Your task to perform on an android device: open app "Google Chrome" Image 0: 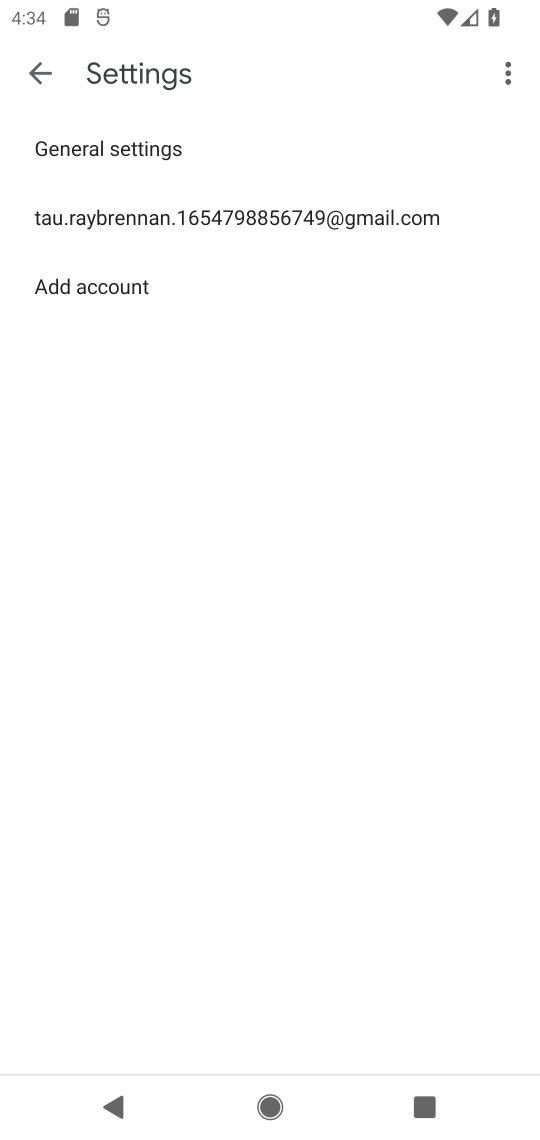
Step 0: press home button
Your task to perform on an android device: open app "Google Chrome" Image 1: 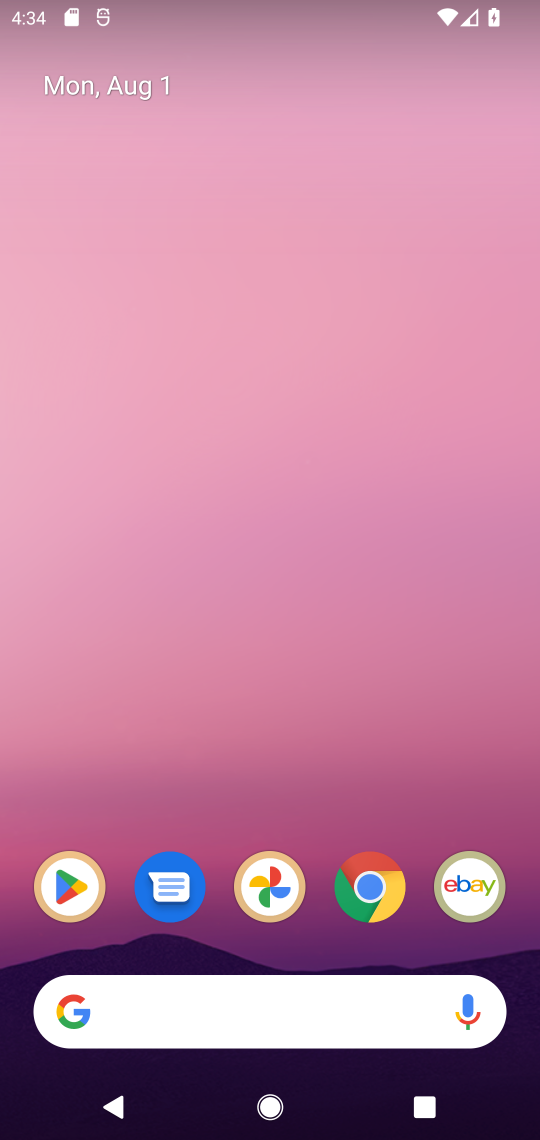
Step 1: click (356, 866)
Your task to perform on an android device: open app "Google Chrome" Image 2: 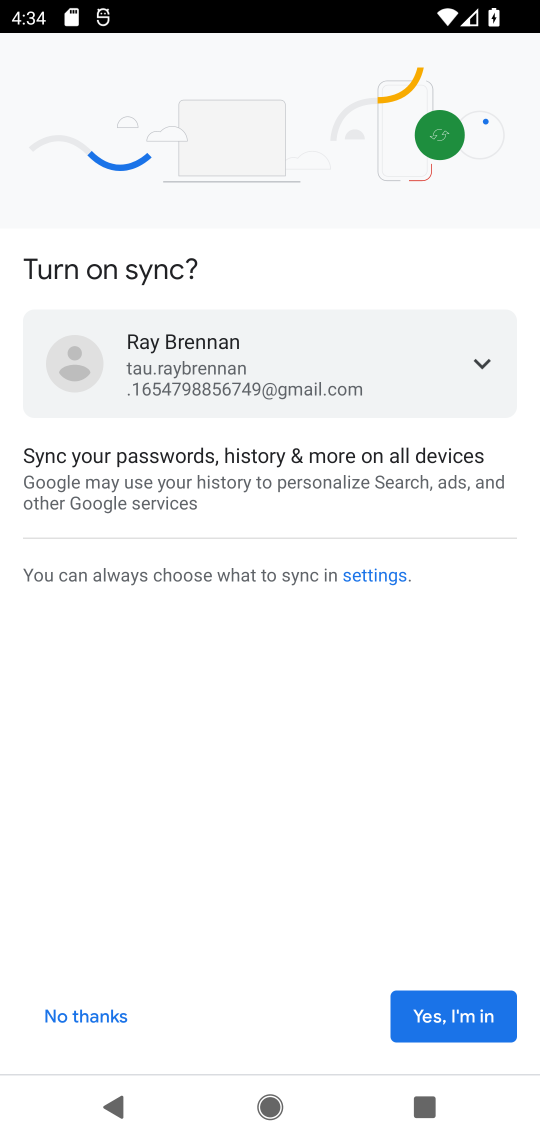
Step 2: click (426, 1037)
Your task to perform on an android device: open app "Google Chrome" Image 3: 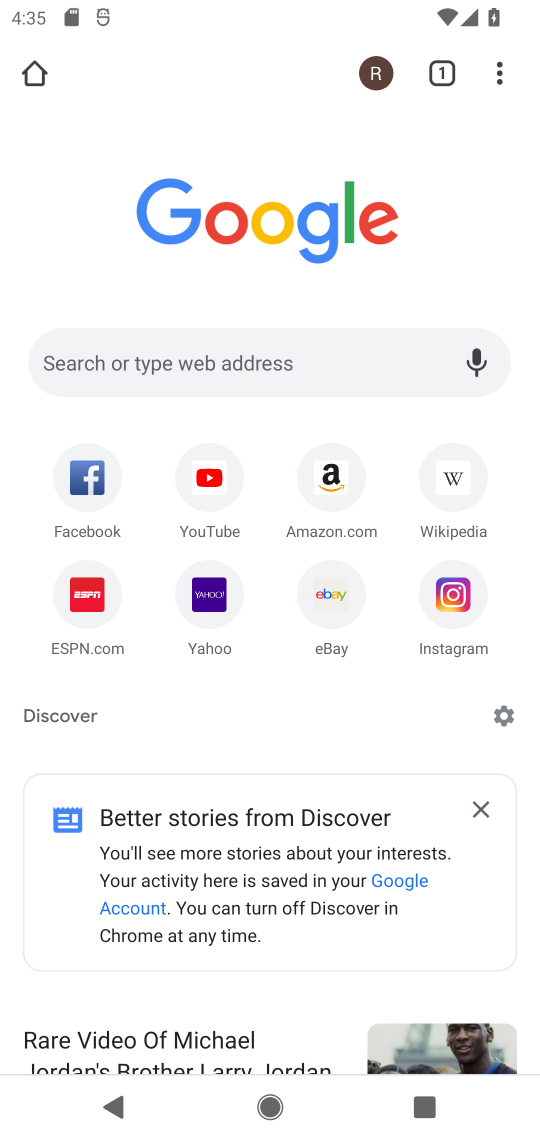
Step 3: task complete